Your task to perform on an android device: turn off smart reply in the gmail app Image 0: 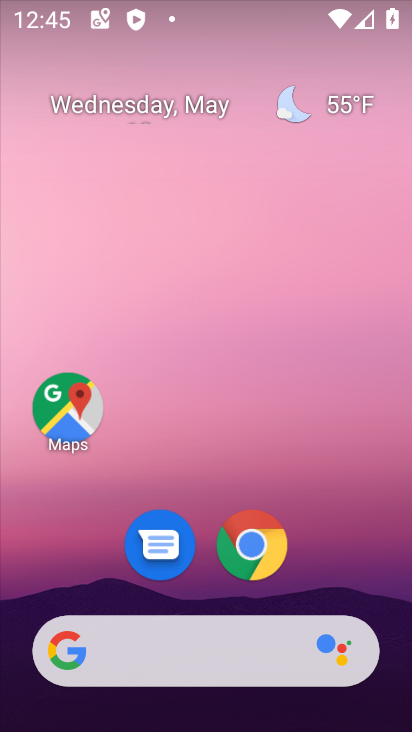
Step 0: drag from (346, 568) to (324, 23)
Your task to perform on an android device: turn off smart reply in the gmail app Image 1: 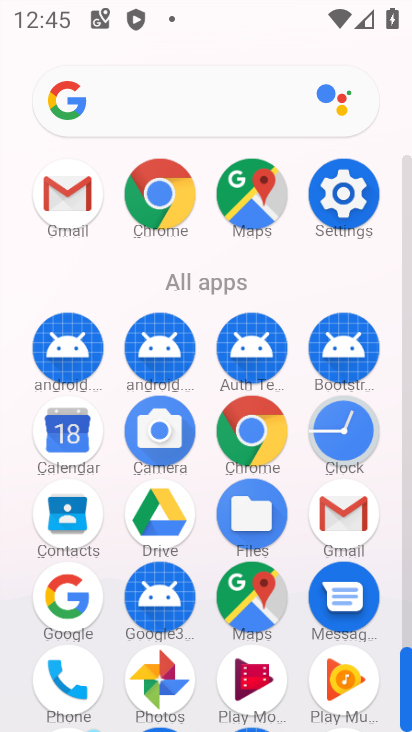
Step 1: click (338, 522)
Your task to perform on an android device: turn off smart reply in the gmail app Image 2: 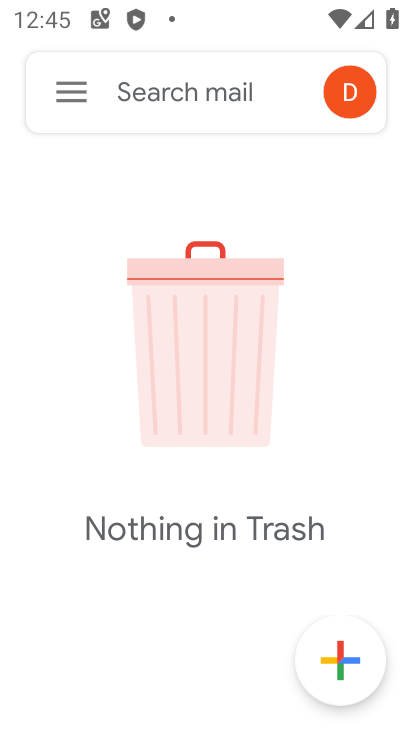
Step 2: click (66, 82)
Your task to perform on an android device: turn off smart reply in the gmail app Image 3: 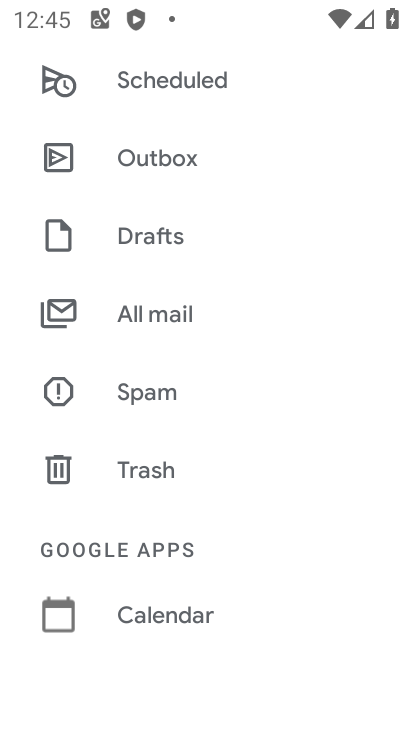
Step 3: drag from (271, 550) to (266, 285)
Your task to perform on an android device: turn off smart reply in the gmail app Image 4: 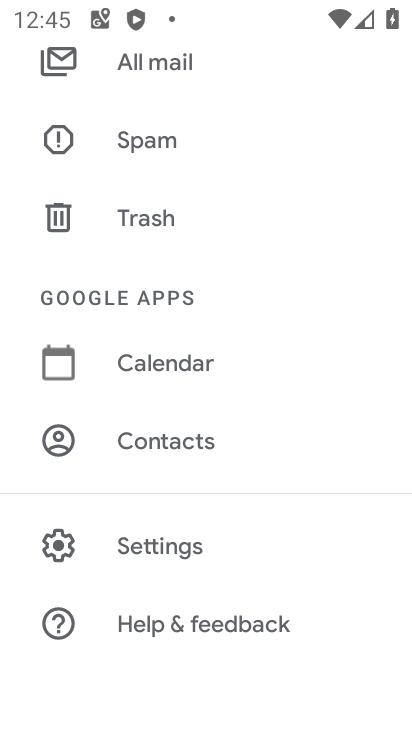
Step 4: click (224, 536)
Your task to perform on an android device: turn off smart reply in the gmail app Image 5: 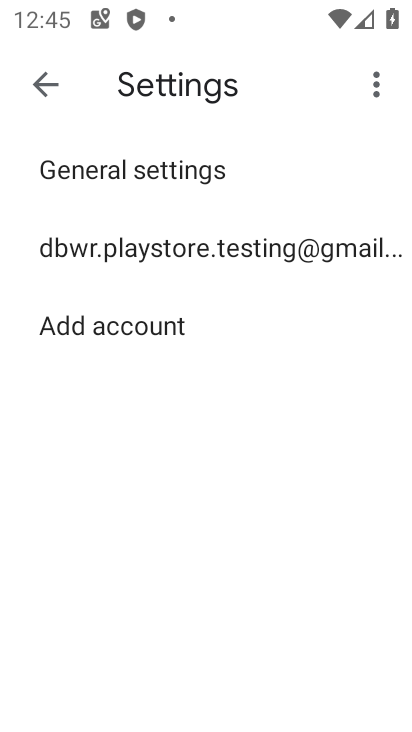
Step 5: click (129, 249)
Your task to perform on an android device: turn off smart reply in the gmail app Image 6: 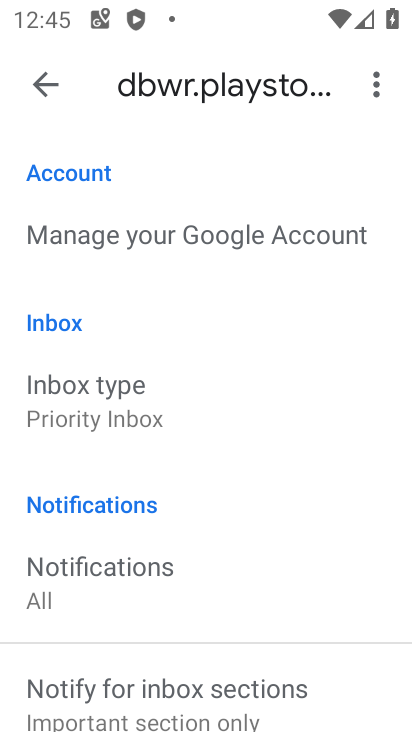
Step 6: drag from (333, 668) to (335, 247)
Your task to perform on an android device: turn off smart reply in the gmail app Image 7: 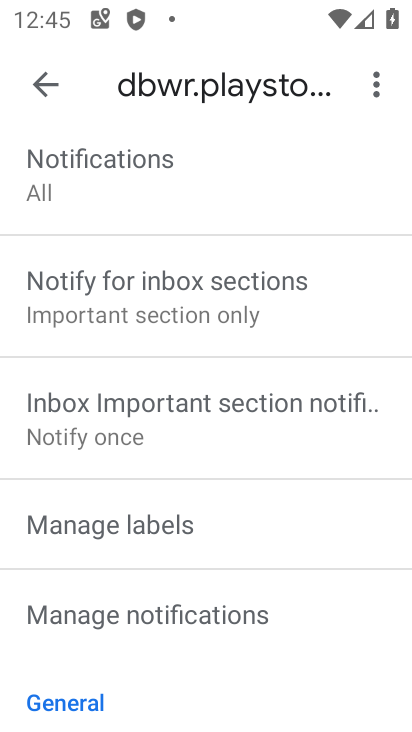
Step 7: drag from (376, 603) to (338, 70)
Your task to perform on an android device: turn off smart reply in the gmail app Image 8: 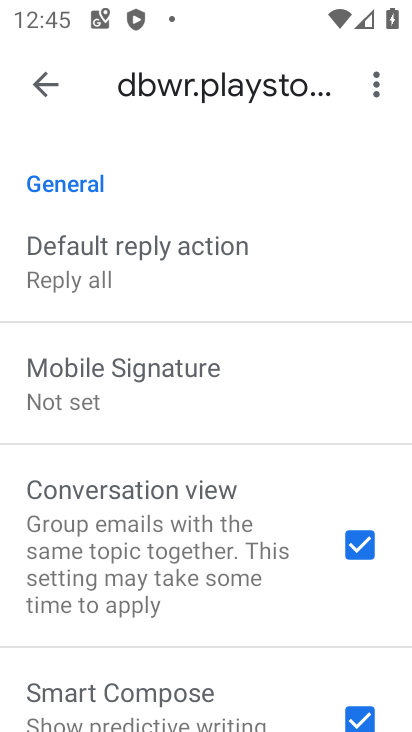
Step 8: drag from (302, 661) to (279, 282)
Your task to perform on an android device: turn off smart reply in the gmail app Image 9: 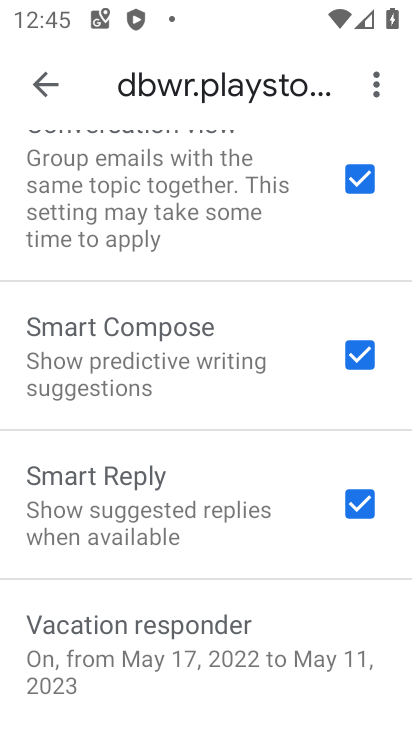
Step 9: click (361, 505)
Your task to perform on an android device: turn off smart reply in the gmail app Image 10: 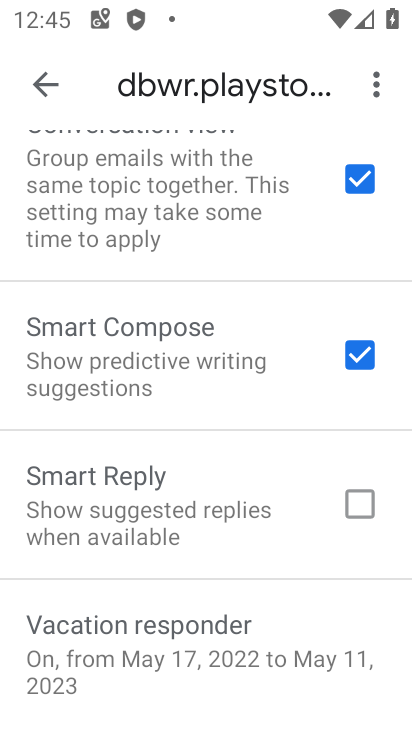
Step 10: task complete